Your task to perform on an android device: Play the new Selena Gomez video on YouTube Image 0: 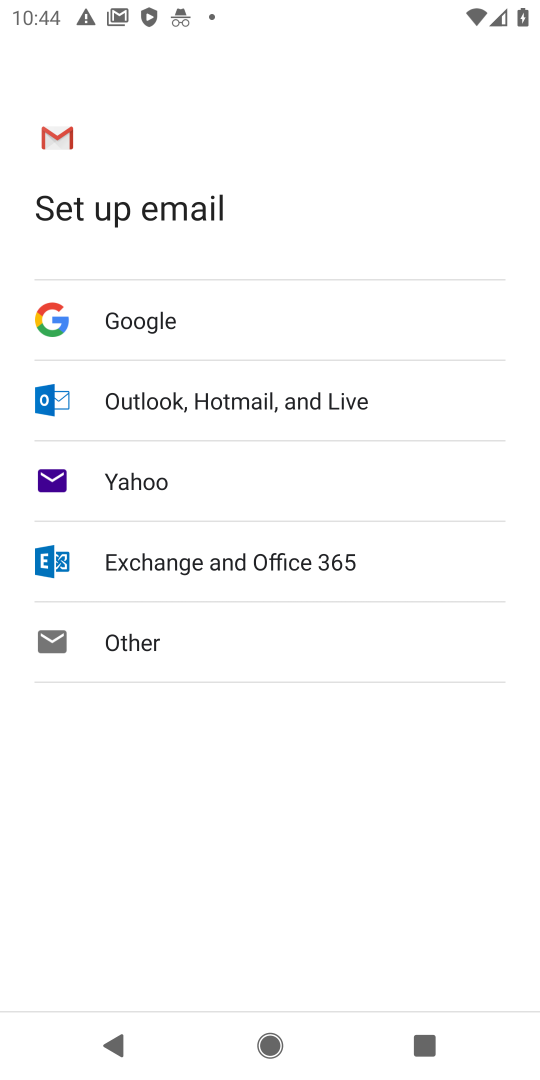
Step 0: press home button
Your task to perform on an android device: Play the new Selena Gomez video on YouTube Image 1: 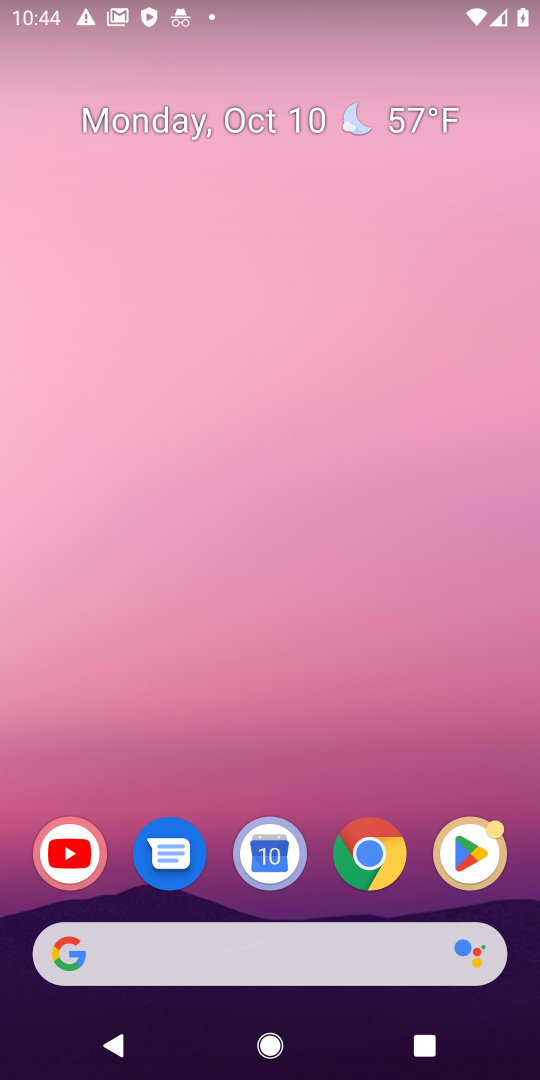
Step 1: drag from (464, 715) to (460, 95)
Your task to perform on an android device: Play the new Selena Gomez video on YouTube Image 2: 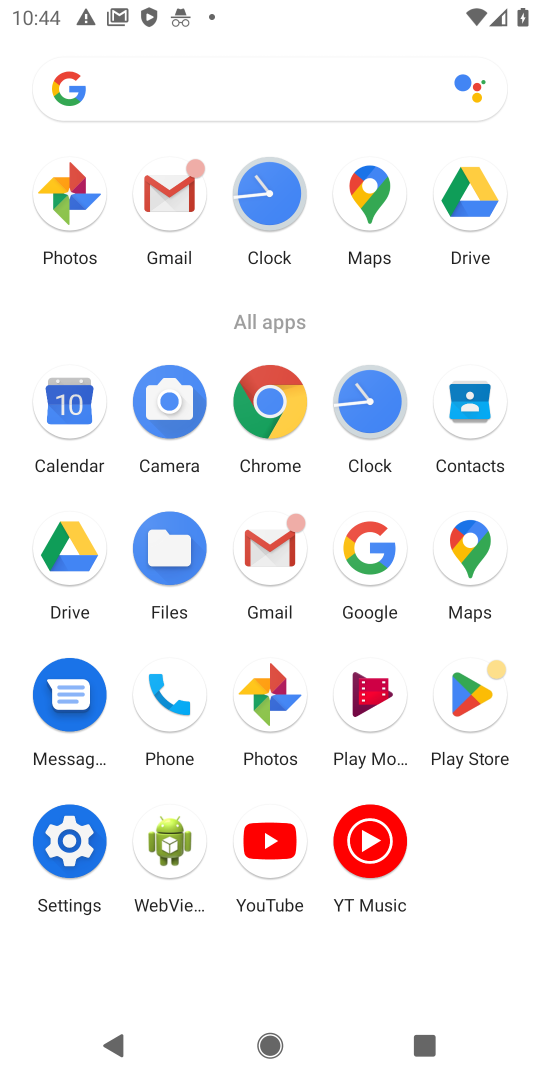
Step 2: click (280, 845)
Your task to perform on an android device: Play the new Selena Gomez video on YouTube Image 3: 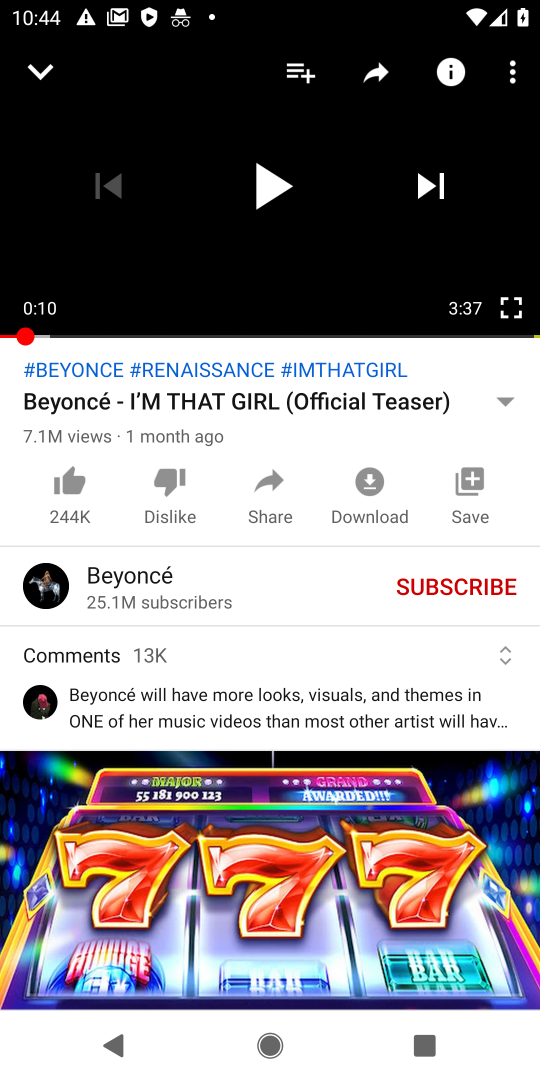
Step 3: press back button
Your task to perform on an android device: Play the new Selena Gomez video on YouTube Image 4: 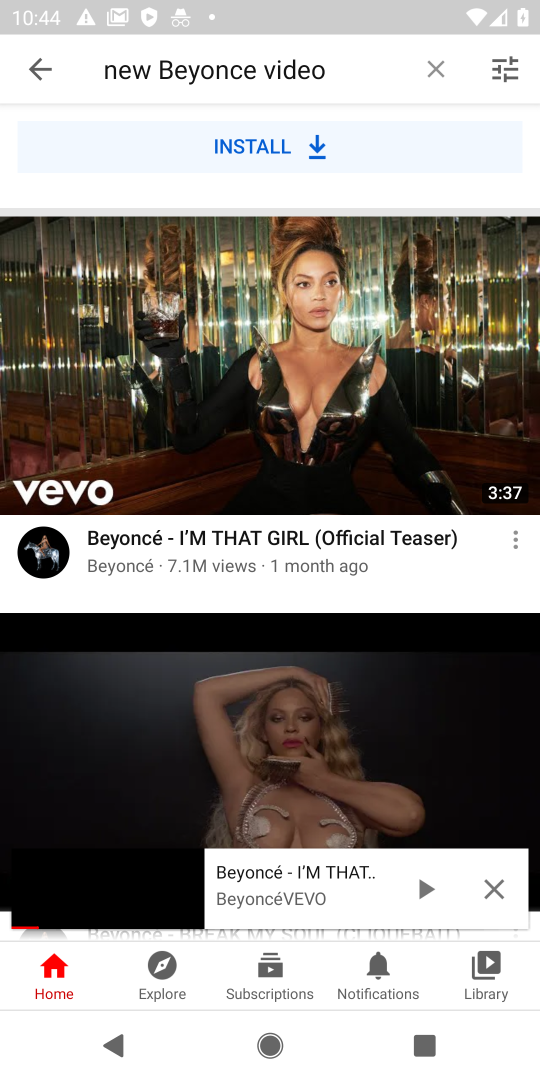
Step 4: click (427, 58)
Your task to perform on an android device: Play the new Selena Gomez video on YouTube Image 5: 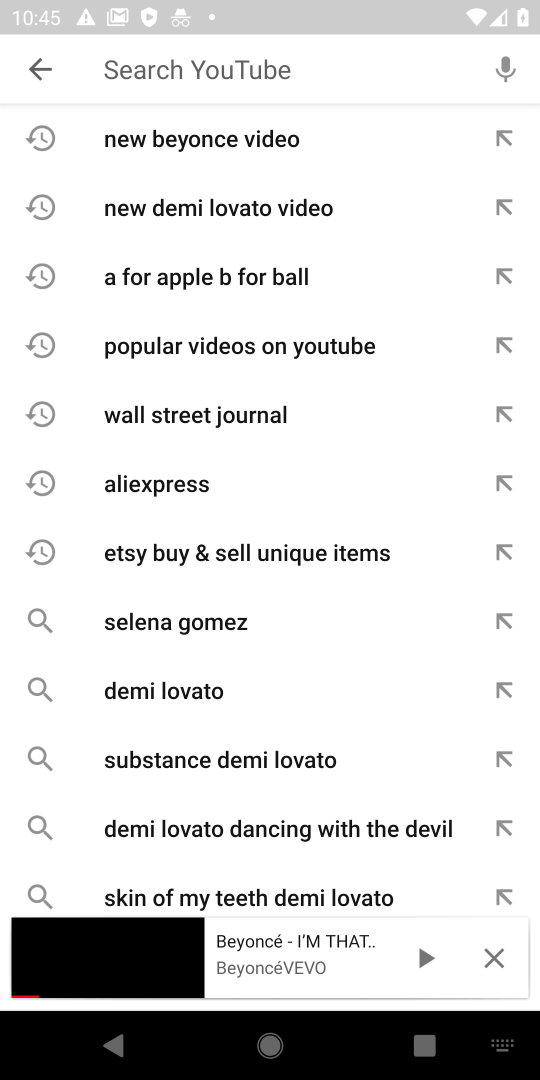
Step 5: type "new Selena Gomez video"
Your task to perform on an android device: Play the new Selena Gomez video on YouTube Image 6: 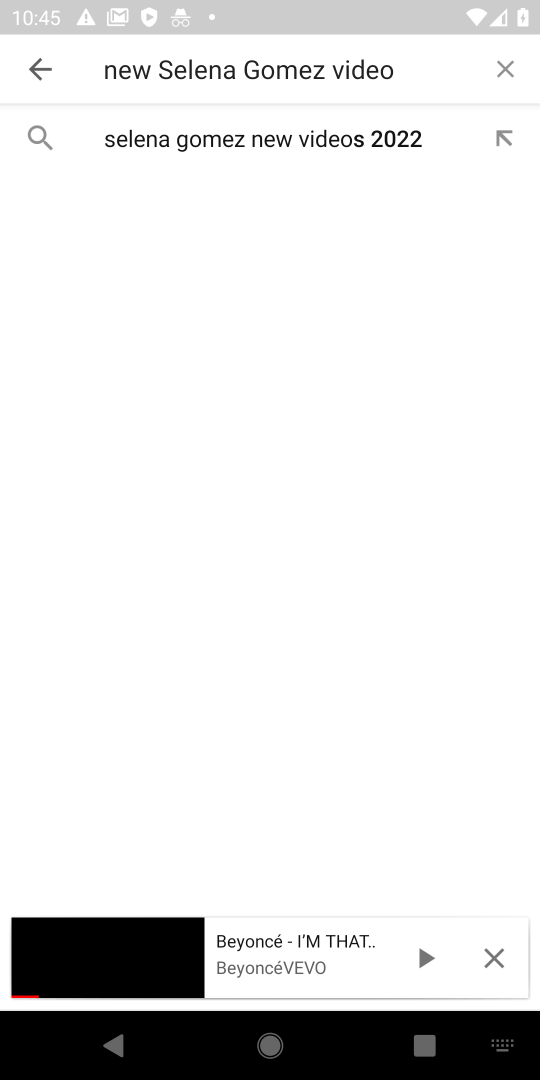
Step 6: press enter
Your task to perform on an android device: Play the new Selena Gomez video on YouTube Image 7: 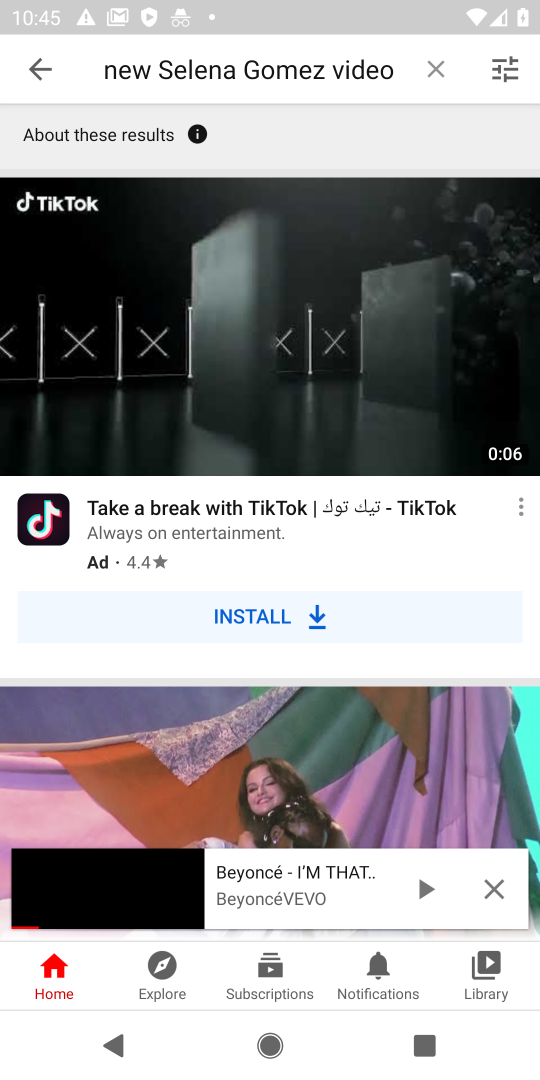
Step 7: click (492, 887)
Your task to perform on an android device: Play the new Selena Gomez video on YouTube Image 8: 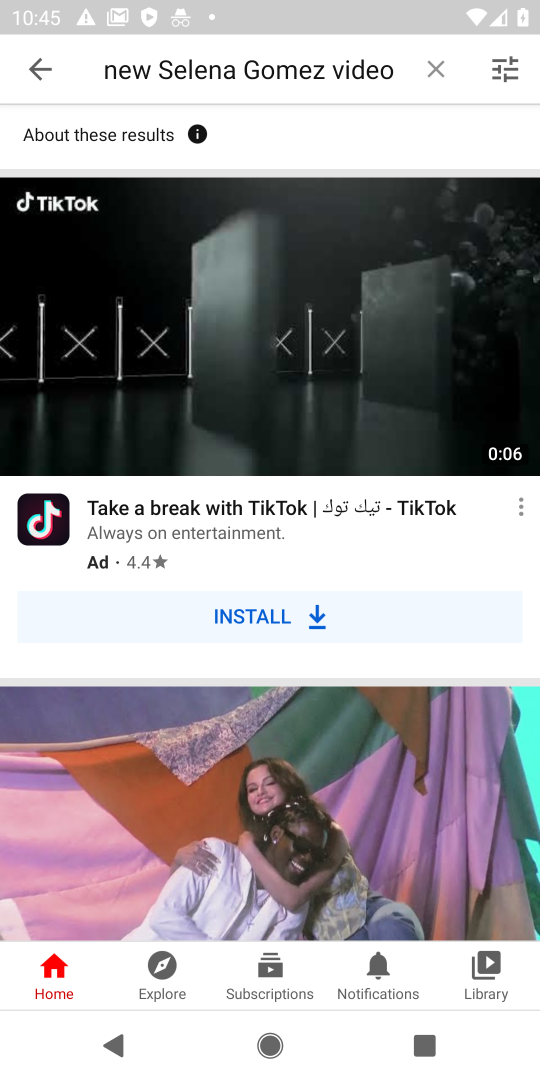
Step 8: drag from (389, 786) to (407, 395)
Your task to perform on an android device: Play the new Selena Gomez video on YouTube Image 9: 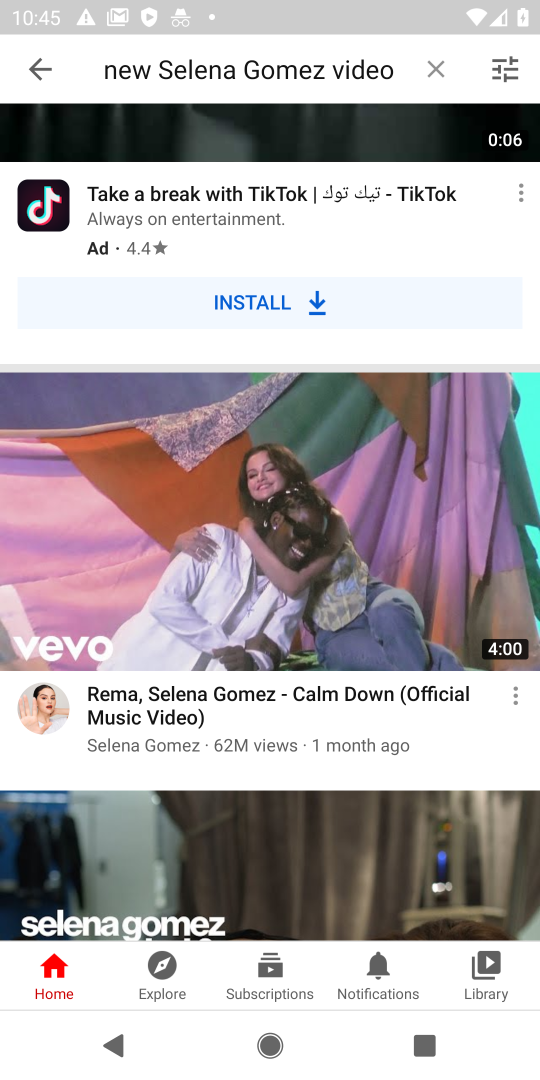
Step 9: click (292, 491)
Your task to perform on an android device: Play the new Selena Gomez video on YouTube Image 10: 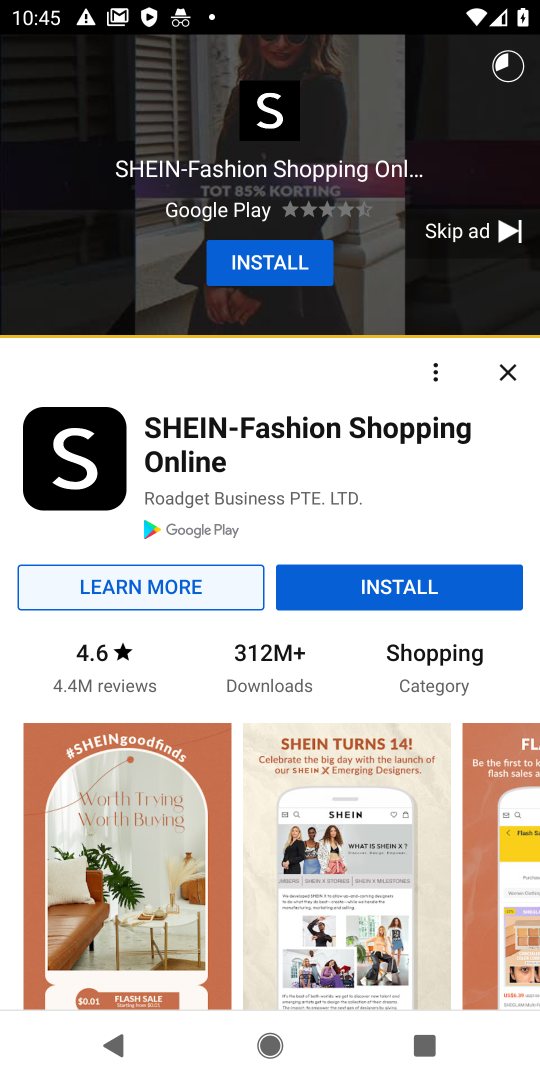
Step 10: click (465, 229)
Your task to perform on an android device: Play the new Selena Gomez video on YouTube Image 11: 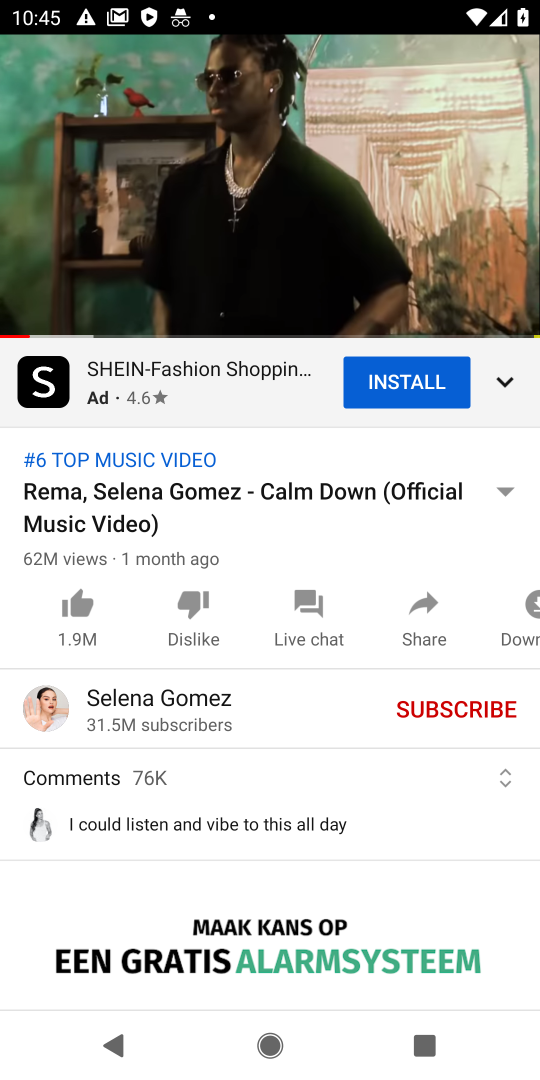
Step 11: task complete